Your task to perform on an android device: open chrome and create a bookmark for the current page Image 0: 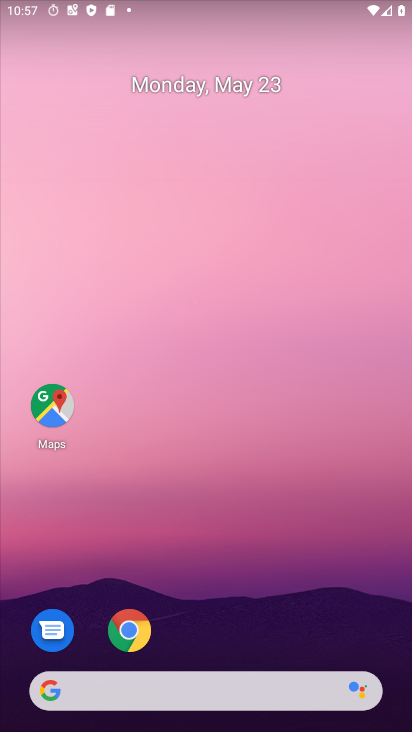
Step 0: click (131, 636)
Your task to perform on an android device: open chrome and create a bookmark for the current page Image 1: 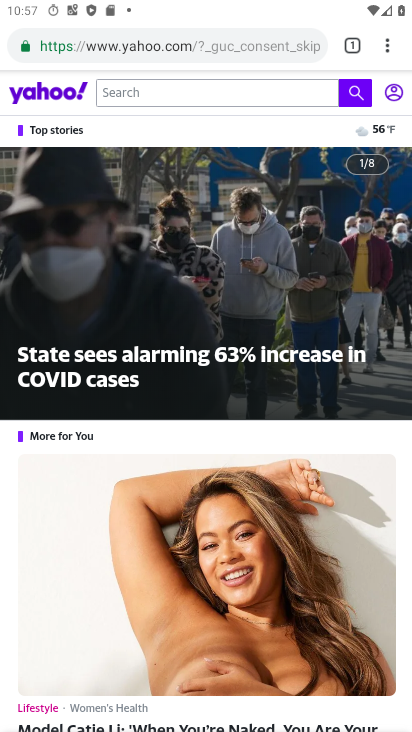
Step 1: click (390, 47)
Your task to perform on an android device: open chrome and create a bookmark for the current page Image 2: 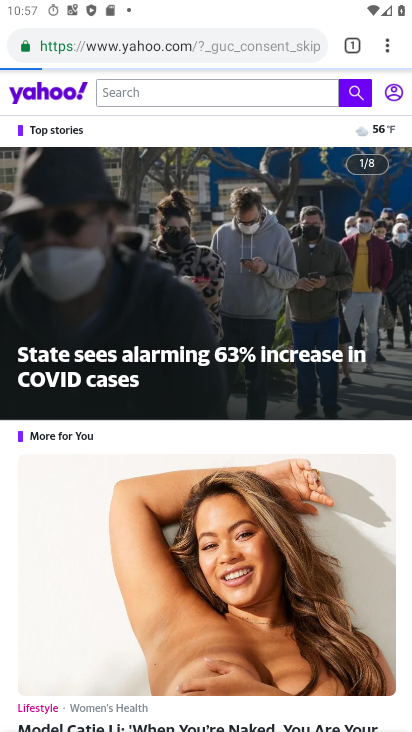
Step 2: click (389, 47)
Your task to perform on an android device: open chrome and create a bookmark for the current page Image 3: 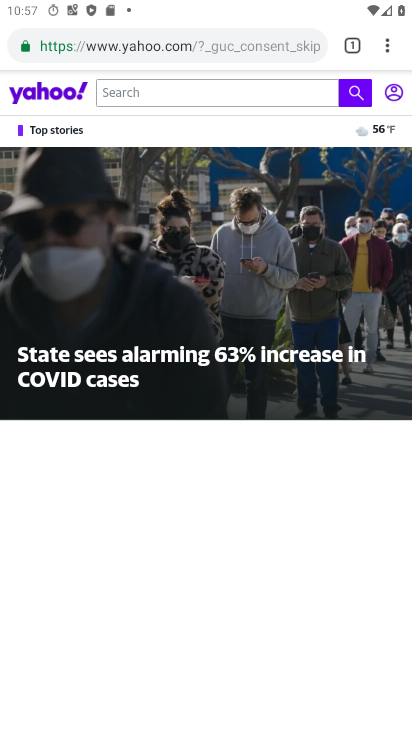
Step 3: click (388, 46)
Your task to perform on an android device: open chrome and create a bookmark for the current page Image 4: 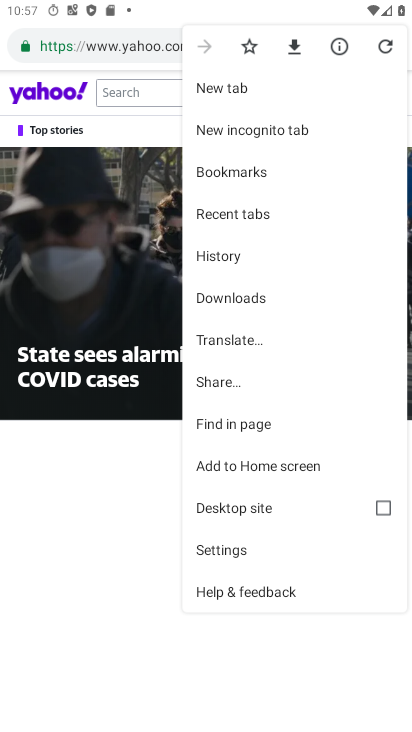
Step 4: click (245, 48)
Your task to perform on an android device: open chrome and create a bookmark for the current page Image 5: 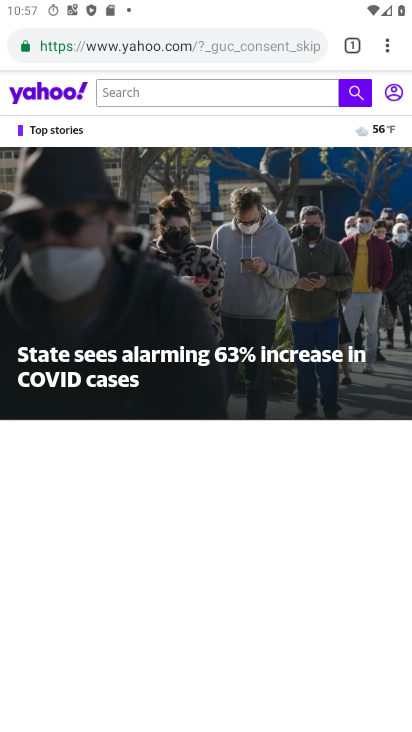
Step 5: task complete